Your task to perform on an android device: Go to Yahoo.com Image 0: 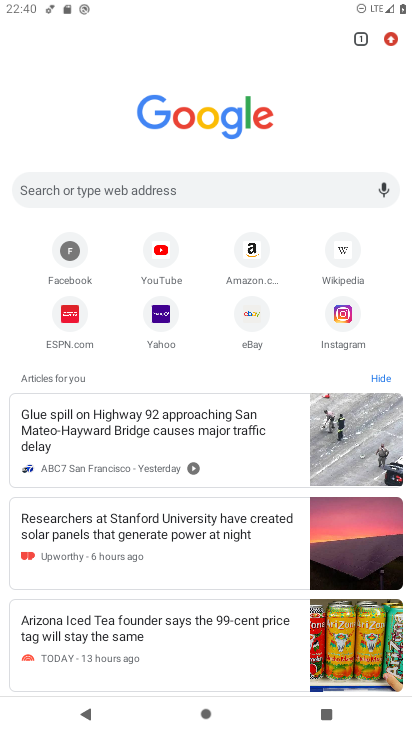
Step 0: click (157, 315)
Your task to perform on an android device: Go to Yahoo.com Image 1: 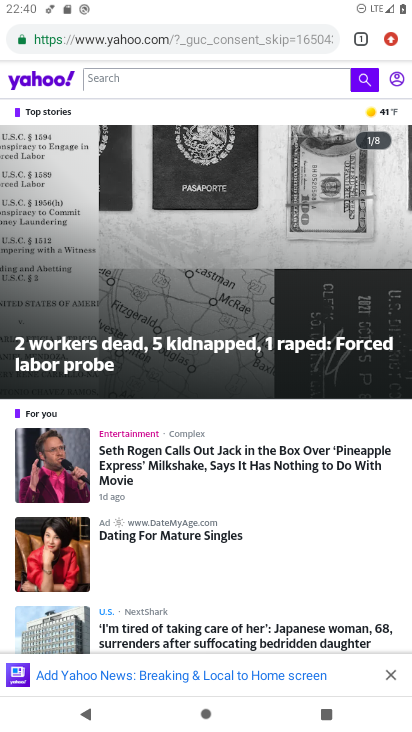
Step 1: task complete